Your task to perform on an android device: Where can I buy a nice beach tent? Image 0: 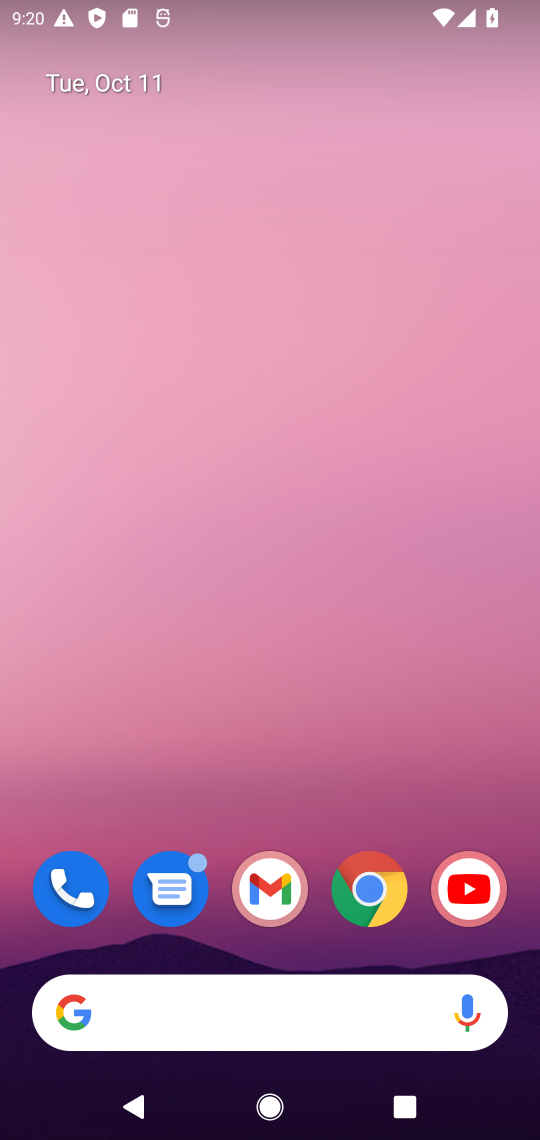
Step 0: click (236, 1028)
Your task to perform on an android device: Where can I buy a nice beach tent? Image 1: 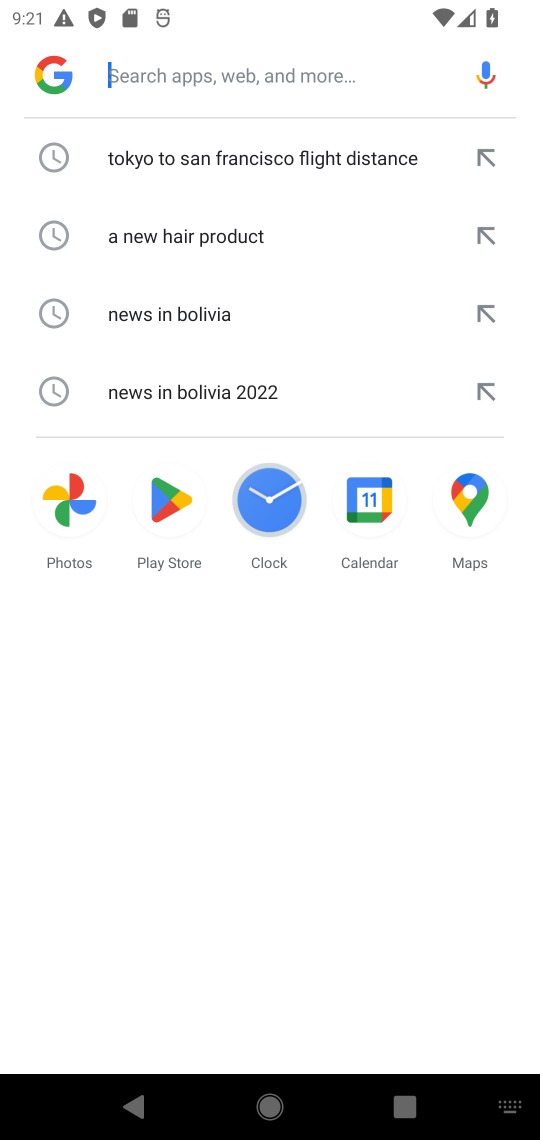
Step 1: type "where can i buy a nice beach tent"
Your task to perform on an android device: Where can I buy a nice beach tent? Image 2: 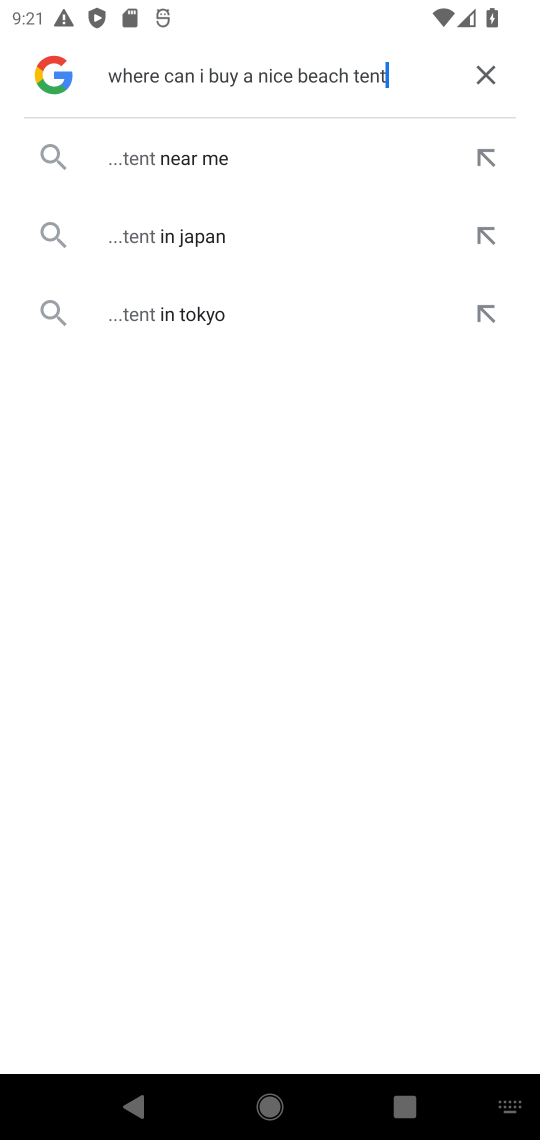
Step 2: click (210, 148)
Your task to perform on an android device: Where can I buy a nice beach tent? Image 3: 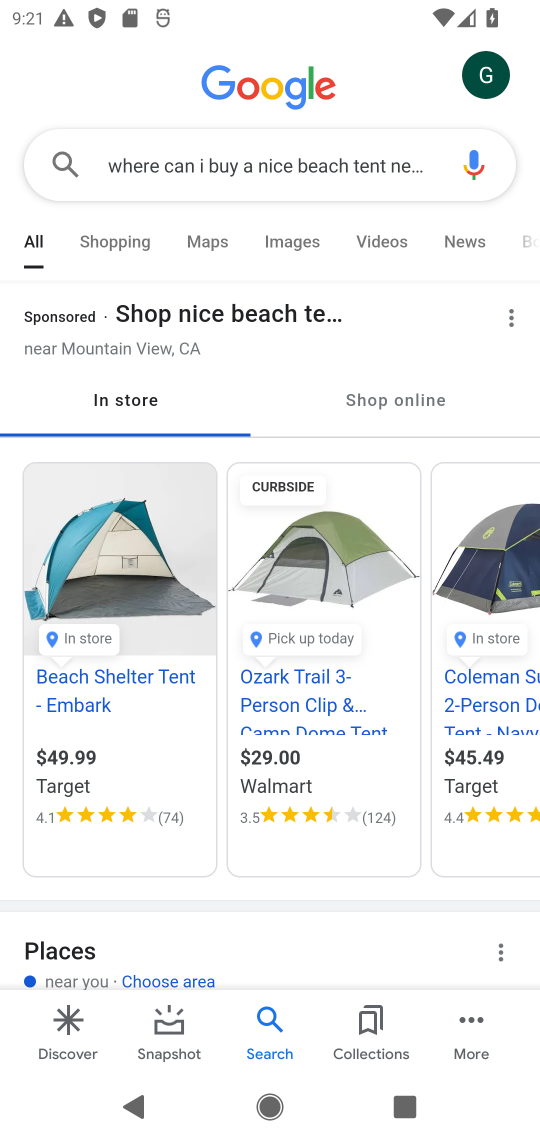
Step 3: task complete